Your task to perform on an android device: open the mobile data screen to see how much data has been used Image 0: 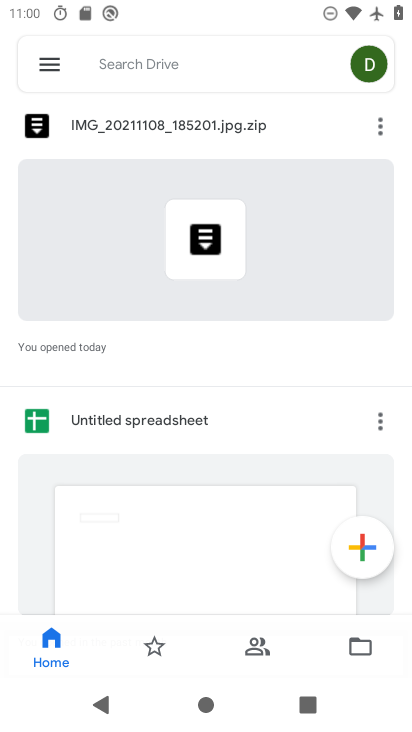
Step 0: press home button
Your task to perform on an android device: open the mobile data screen to see how much data has been used Image 1: 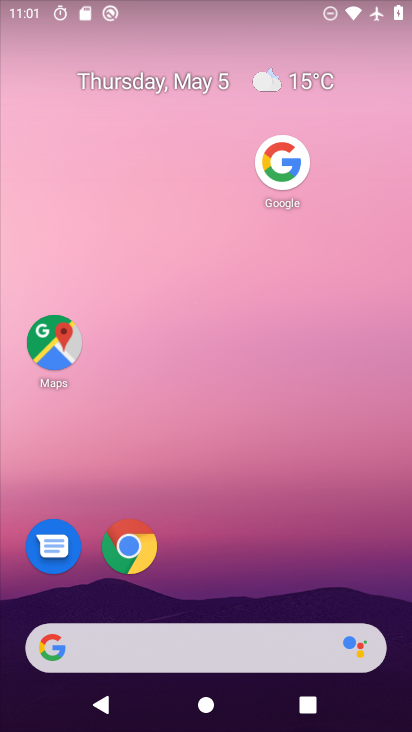
Step 1: drag from (244, 653) to (365, 61)
Your task to perform on an android device: open the mobile data screen to see how much data has been used Image 2: 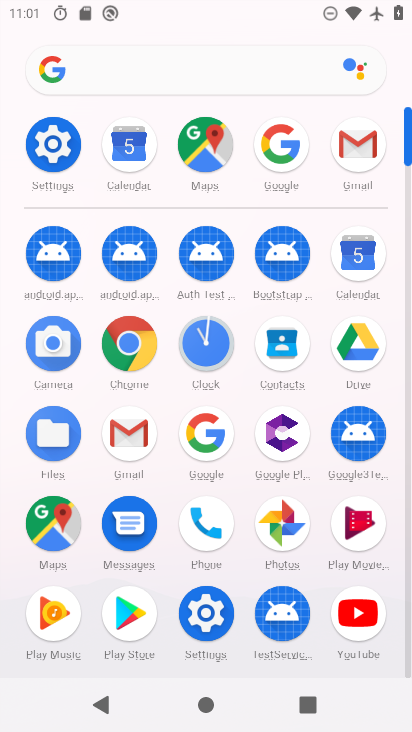
Step 2: click (47, 145)
Your task to perform on an android device: open the mobile data screen to see how much data has been used Image 3: 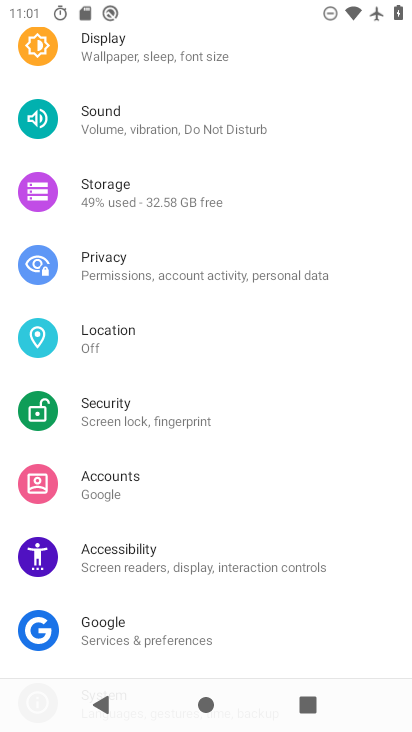
Step 3: drag from (328, 60) to (214, 489)
Your task to perform on an android device: open the mobile data screen to see how much data has been used Image 4: 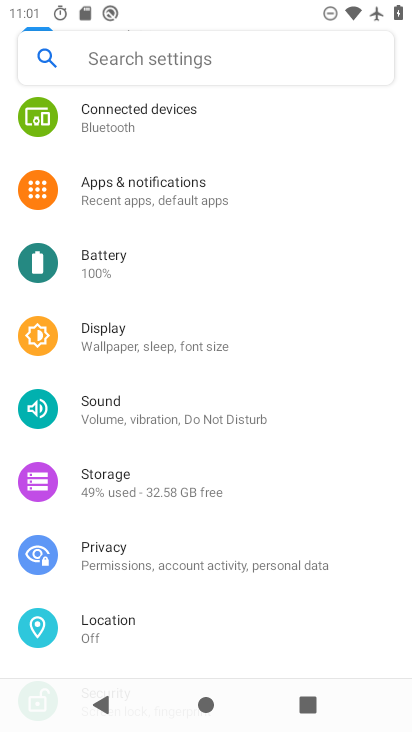
Step 4: drag from (275, 120) to (190, 551)
Your task to perform on an android device: open the mobile data screen to see how much data has been used Image 5: 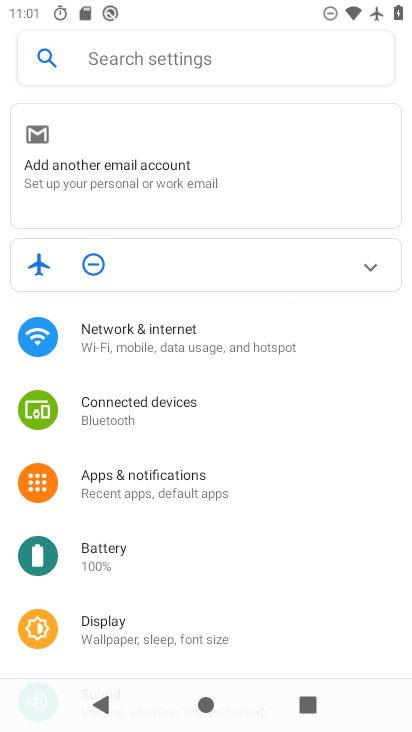
Step 5: click (180, 356)
Your task to perform on an android device: open the mobile data screen to see how much data has been used Image 6: 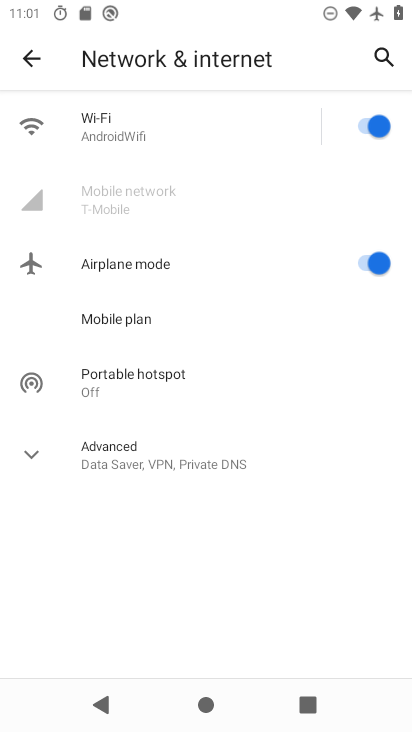
Step 6: task complete